Your task to perform on an android device: Go to privacy settings Image 0: 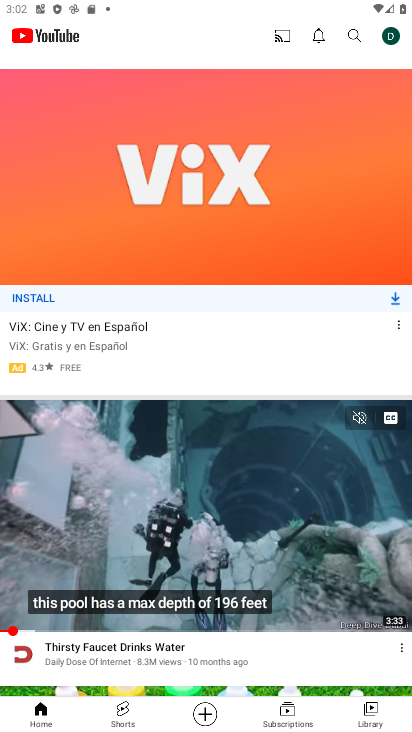
Step 0: press home button
Your task to perform on an android device: Go to privacy settings Image 1: 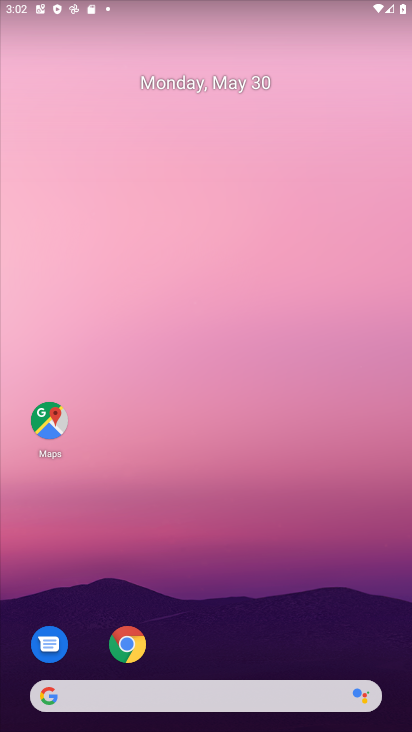
Step 1: drag from (257, 651) to (253, 299)
Your task to perform on an android device: Go to privacy settings Image 2: 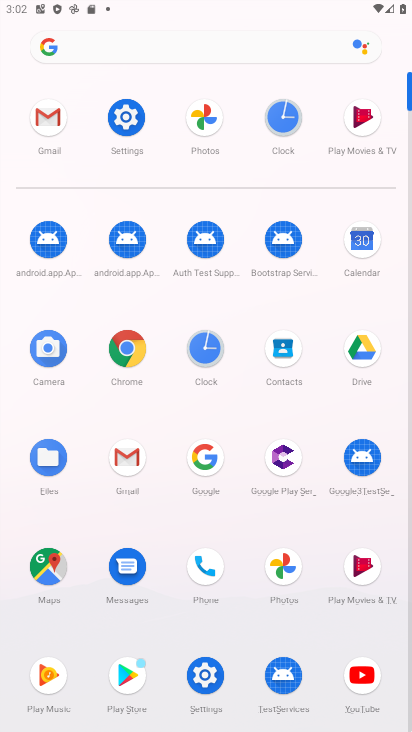
Step 2: click (139, 113)
Your task to perform on an android device: Go to privacy settings Image 3: 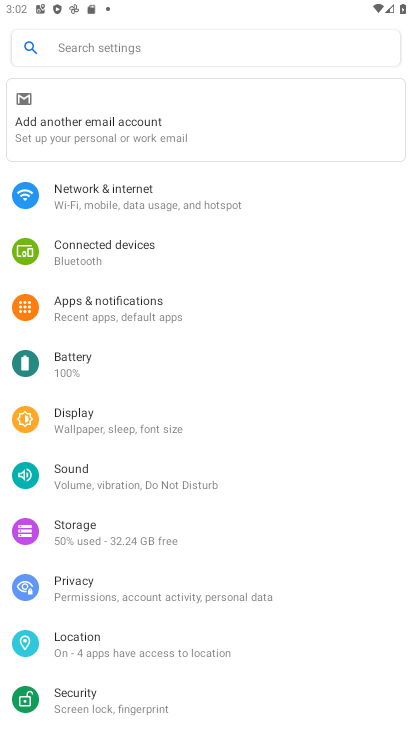
Step 3: click (185, 586)
Your task to perform on an android device: Go to privacy settings Image 4: 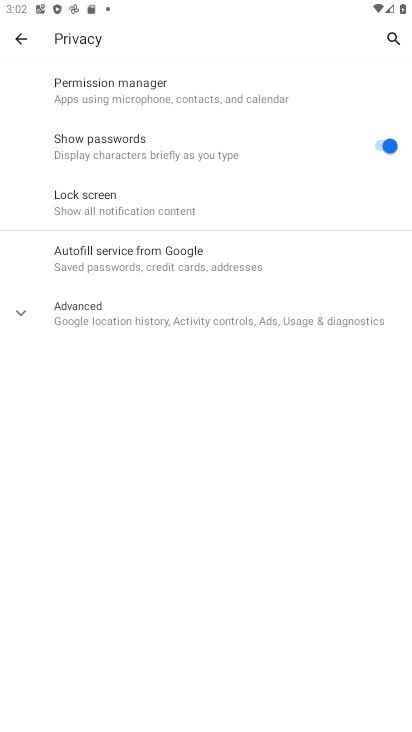
Step 4: task complete